Your task to perform on an android device: turn on the 12-hour format for clock Image 0: 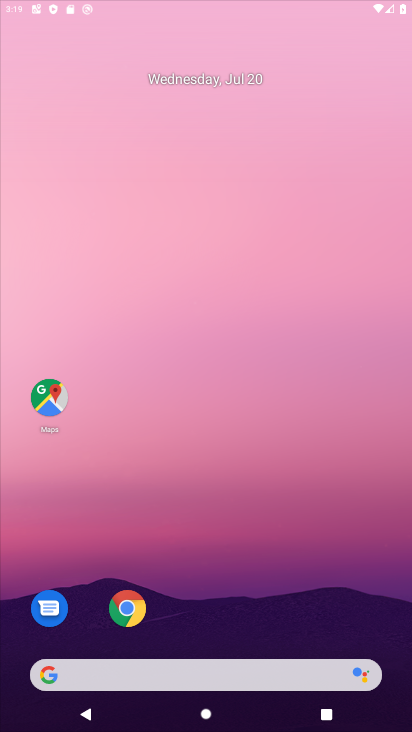
Step 0: drag from (381, 651) to (202, 11)
Your task to perform on an android device: turn on the 12-hour format for clock Image 1: 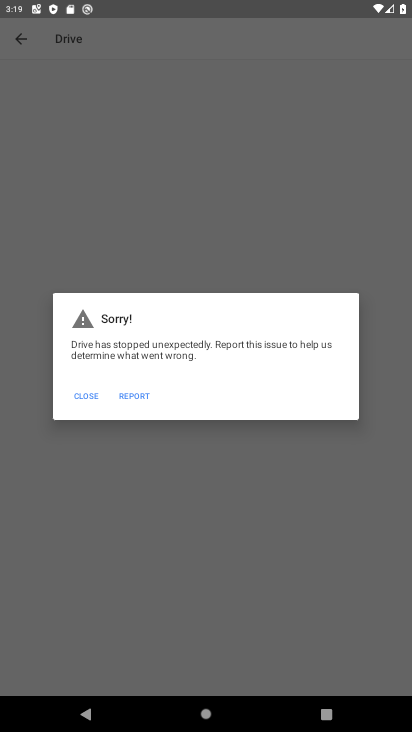
Step 1: press home button
Your task to perform on an android device: turn on the 12-hour format for clock Image 2: 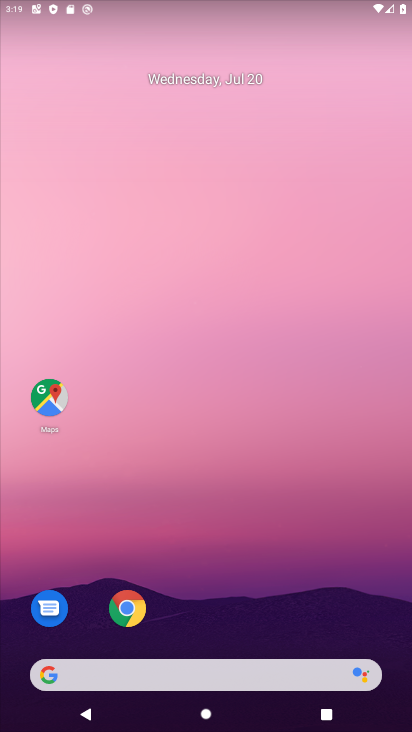
Step 2: drag from (370, 521) to (286, 173)
Your task to perform on an android device: turn on the 12-hour format for clock Image 3: 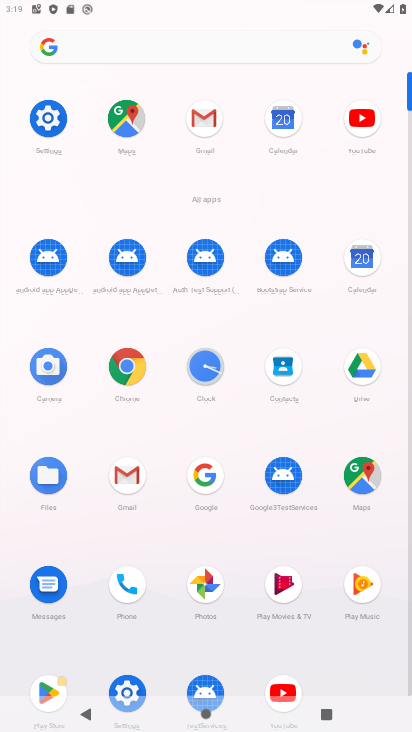
Step 3: click (210, 352)
Your task to perform on an android device: turn on the 12-hour format for clock Image 4: 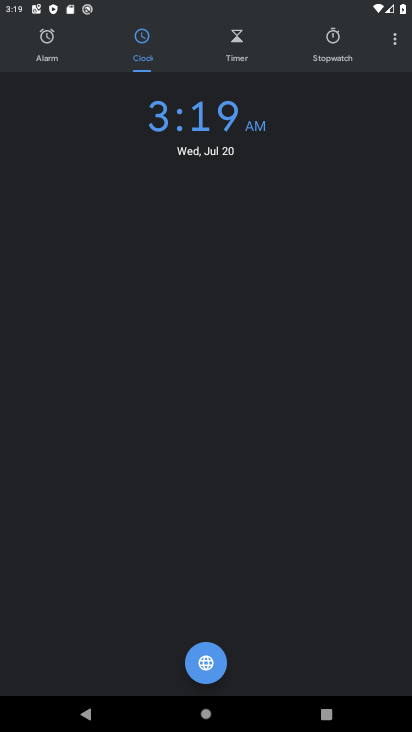
Step 4: click (396, 41)
Your task to perform on an android device: turn on the 12-hour format for clock Image 5: 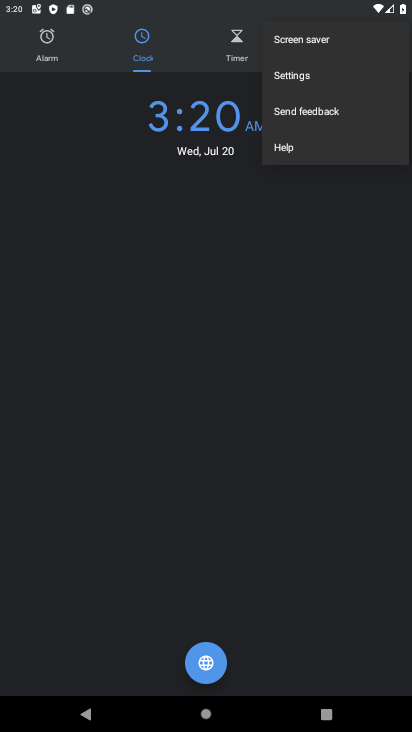
Step 5: click (293, 78)
Your task to perform on an android device: turn on the 12-hour format for clock Image 6: 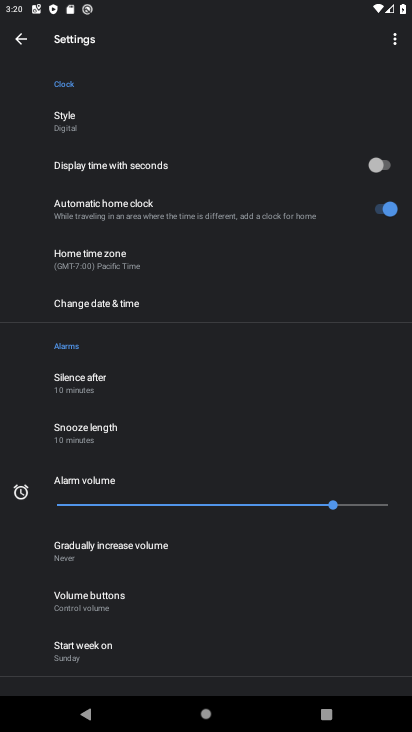
Step 6: click (89, 298)
Your task to perform on an android device: turn on the 12-hour format for clock Image 7: 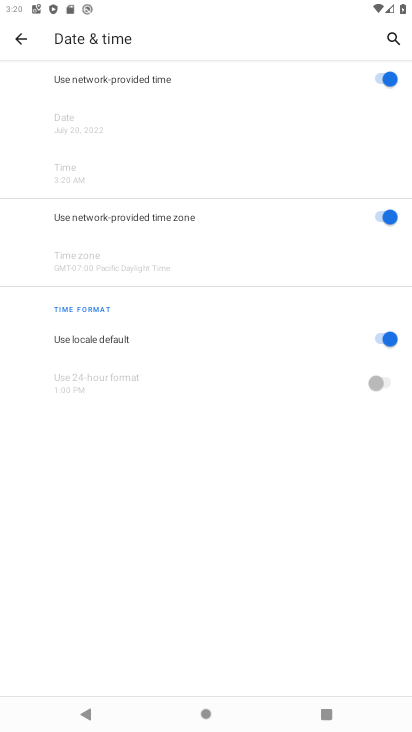
Step 7: click (376, 343)
Your task to perform on an android device: turn on the 12-hour format for clock Image 8: 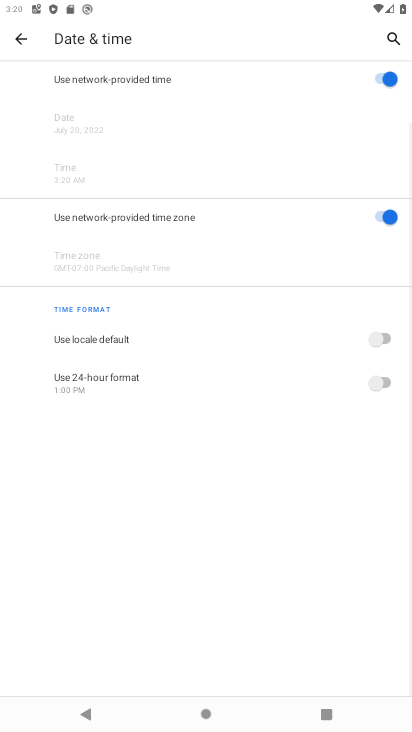
Step 8: click (390, 379)
Your task to perform on an android device: turn on the 12-hour format for clock Image 9: 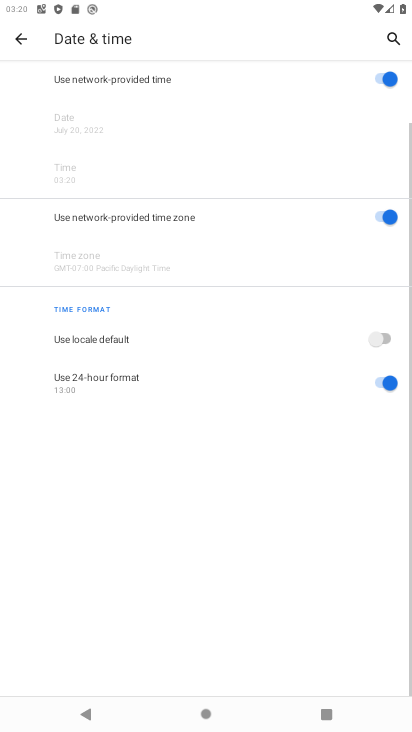
Step 9: task complete